Your task to perform on an android device: What is the news today? Image 0: 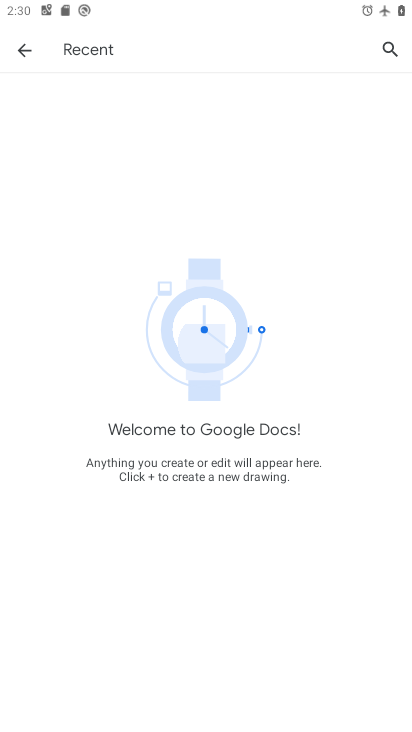
Step 0: press home button
Your task to perform on an android device: What is the news today? Image 1: 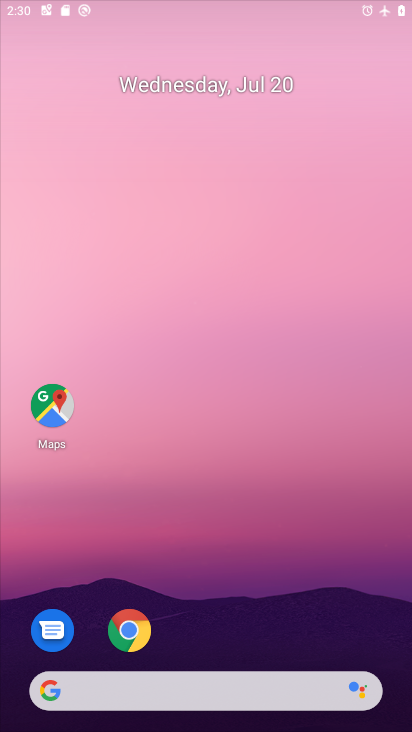
Step 1: drag from (280, 677) to (328, 176)
Your task to perform on an android device: What is the news today? Image 2: 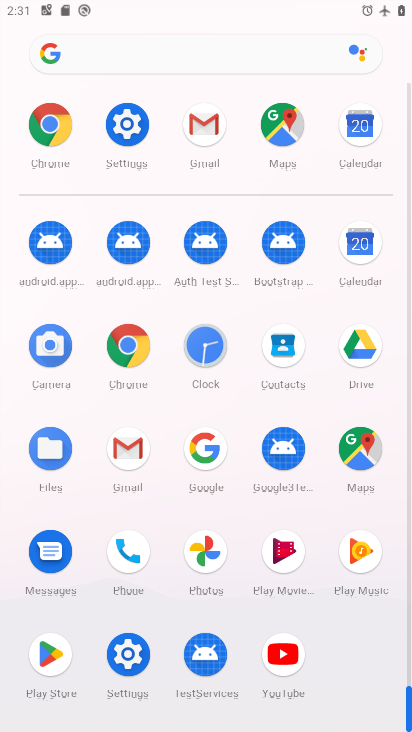
Step 2: drag from (106, 519) to (139, 302)
Your task to perform on an android device: What is the news today? Image 3: 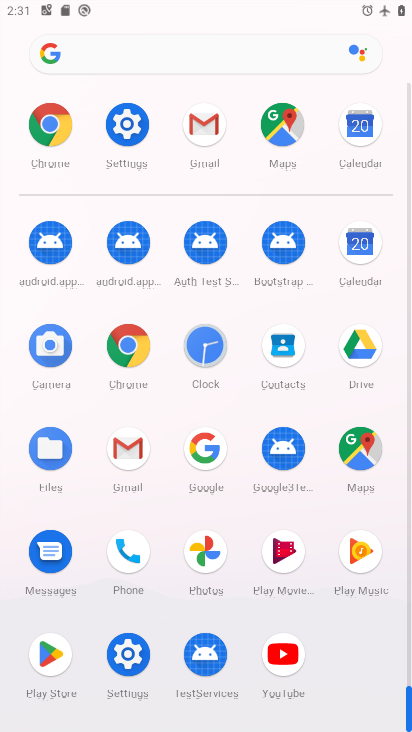
Step 3: click (191, 445)
Your task to perform on an android device: What is the news today? Image 4: 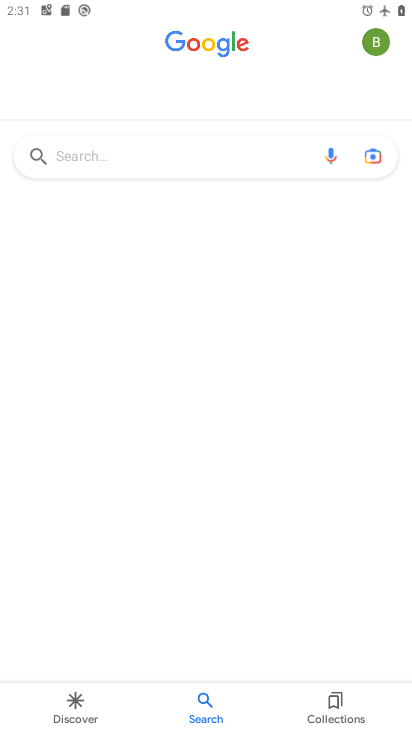
Step 4: click (194, 166)
Your task to perform on an android device: What is the news today? Image 5: 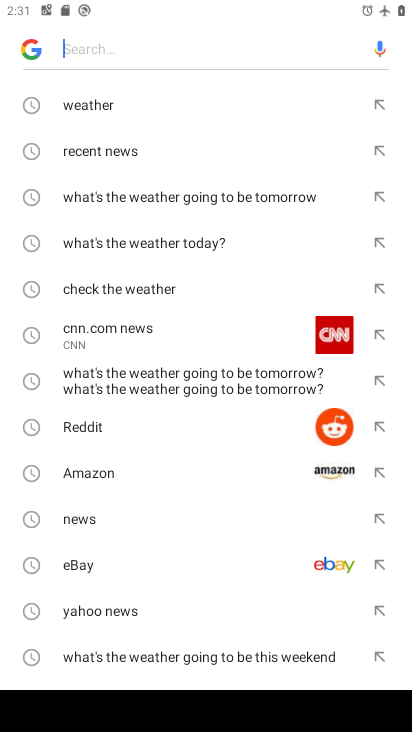
Step 5: click (114, 140)
Your task to perform on an android device: What is the news today? Image 6: 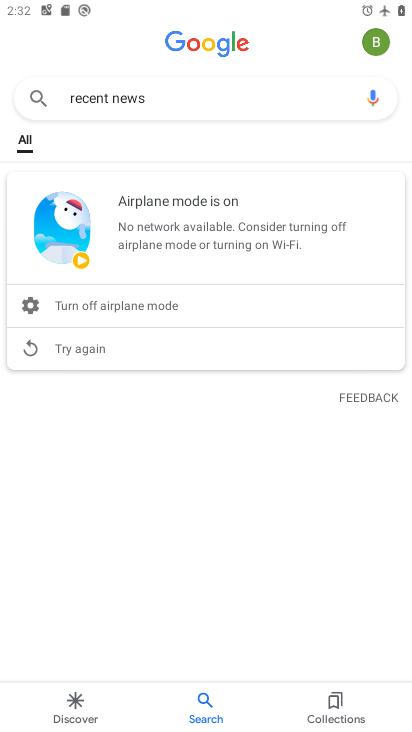
Step 6: task complete